Your task to perform on an android device: Play the last video I watched on Youtube Image 0: 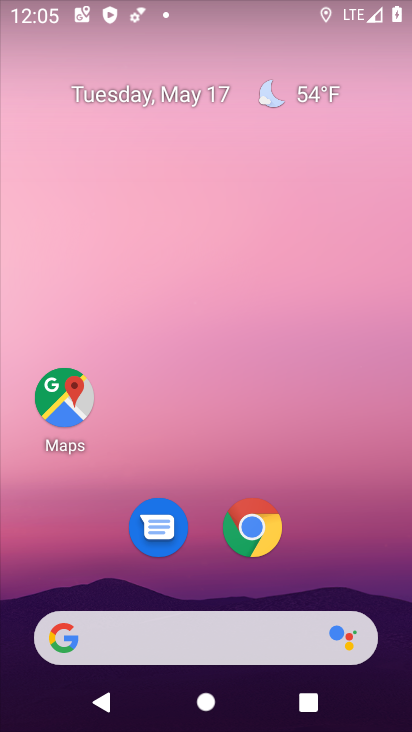
Step 0: drag from (255, 653) to (189, 225)
Your task to perform on an android device: Play the last video I watched on Youtube Image 1: 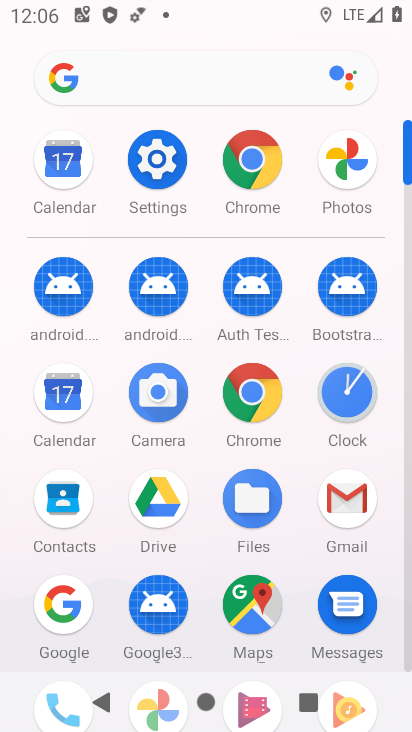
Step 1: drag from (308, 448) to (262, 284)
Your task to perform on an android device: Play the last video I watched on Youtube Image 2: 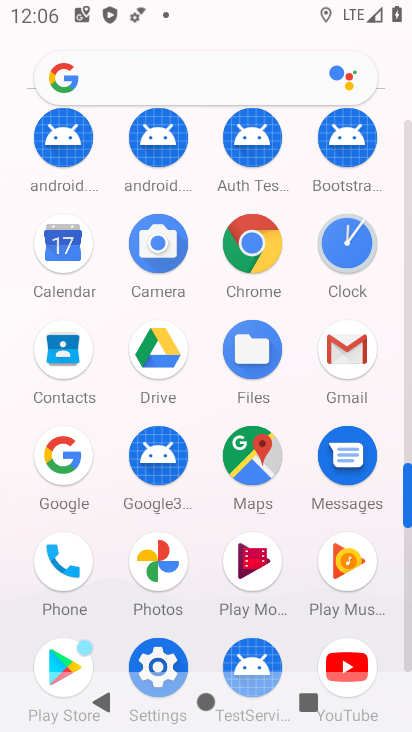
Step 2: click (348, 644)
Your task to perform on an android device: Play the last video I watched on Youtube Image 3: 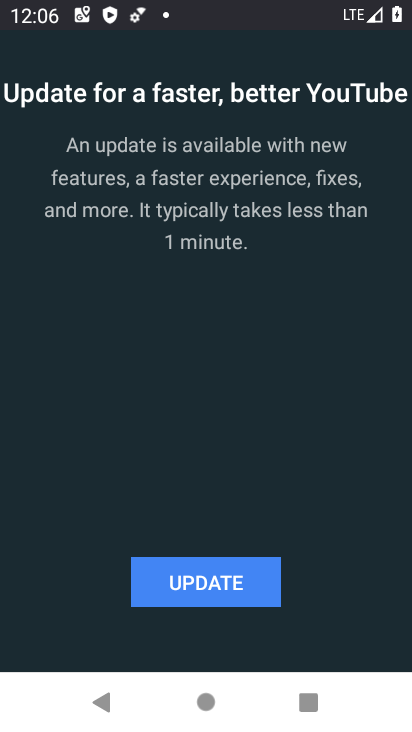
Step 3: click (227, 581)
Your task to perform on an android device: Play the last video I watched on Youtube Image 4: 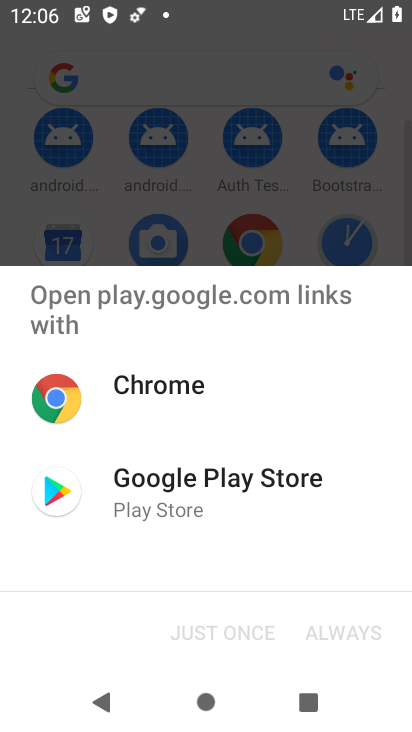
Step 4: click (151, 510)
Your task to perform on an android device: Play the last video I watched on Youtube Image 5: 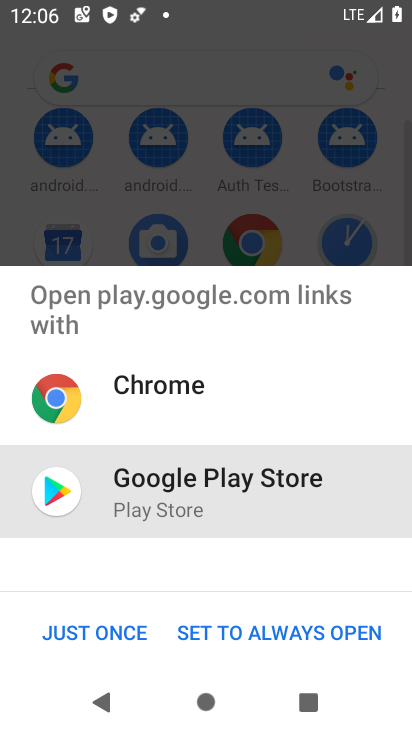
Step 5: click (103, 627)
Your task to perform on an android device: Play the last video I watched on Youtube Image 6: 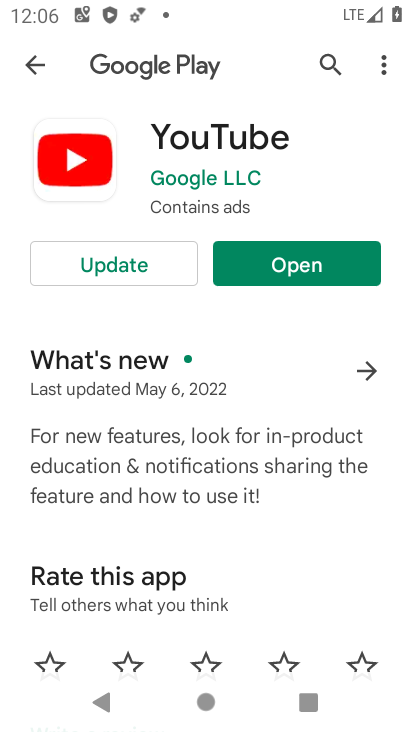
Step 6: click (126, 253)
Your task to perform on an android device: Play the last video I watched on Youtube Image 7: 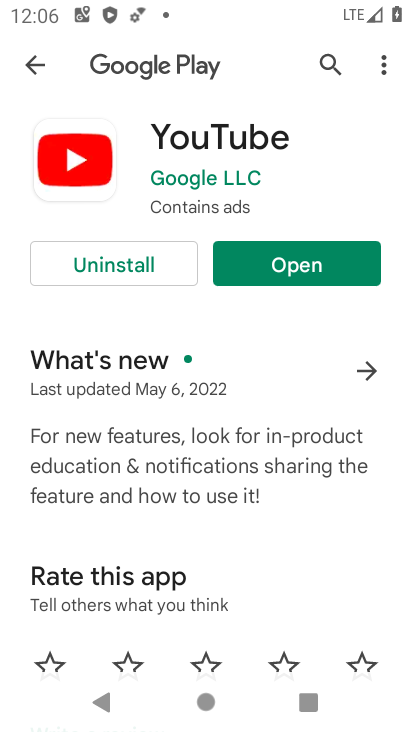
Step 7: click (297, 265)
Your task to perform on an android device: Play the last video I watched on Youtube Image 8: 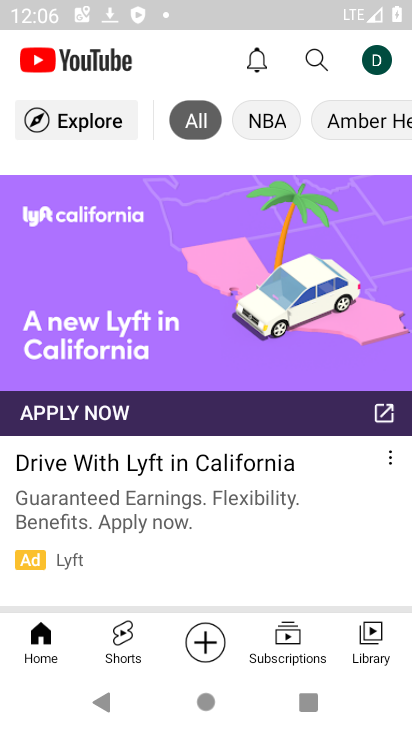
Step 8: click (362, 646)
Your task to perform on an android device: Play the last video I watched on Youtube Image 9: 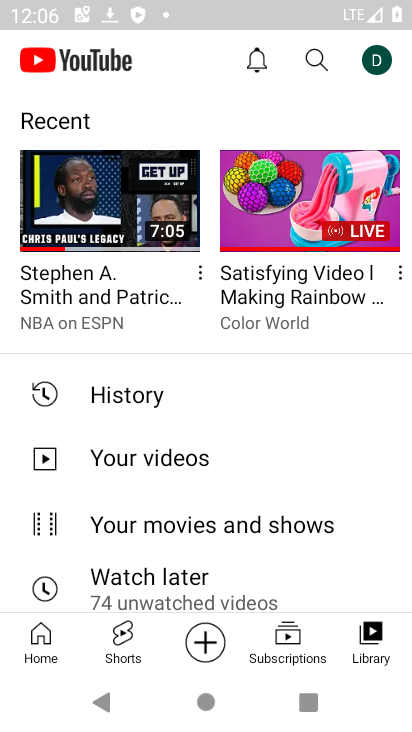
Step 9: click (121, 185)
Your task to perform on an android device: Play the last video I watched on Youtube Image 10: 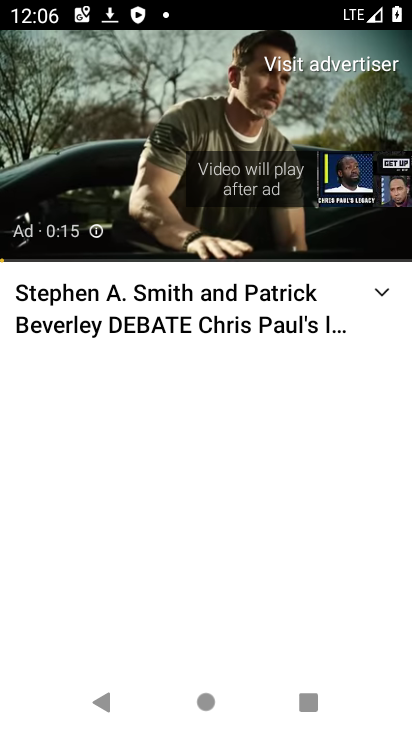
Step 10: task complete